Your task to perform on an android device: turn on improve location accuracy Image 0: 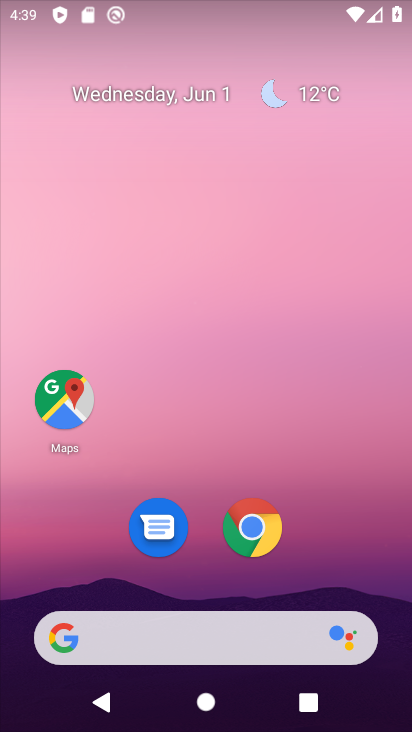
Step 0: drag from (190, 506) to (219, 110)
Your task to perform on an android device: turn on improve location accuracy Image 1: 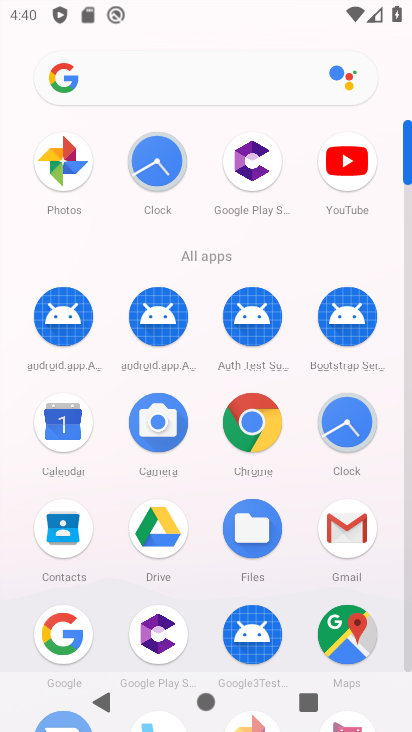
Step 1: drag from (183, 573) to (191, 122)
Your task to perform on an android device: turn on improve location accuracy Image 2: 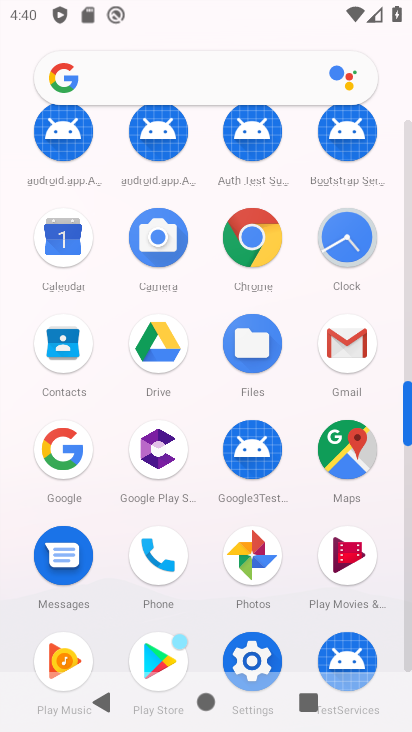
Step 2: click (257, 657)
Your task to perform on an android device: turn on improve location accuracy Image 3: 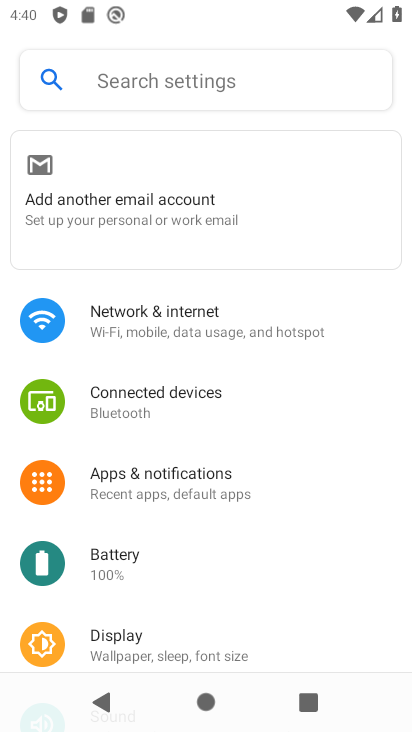
Step 3: drag from (127, 585) to (158, 117)
Your task to perform on an android device: turn on improve location accuracy Image 4: 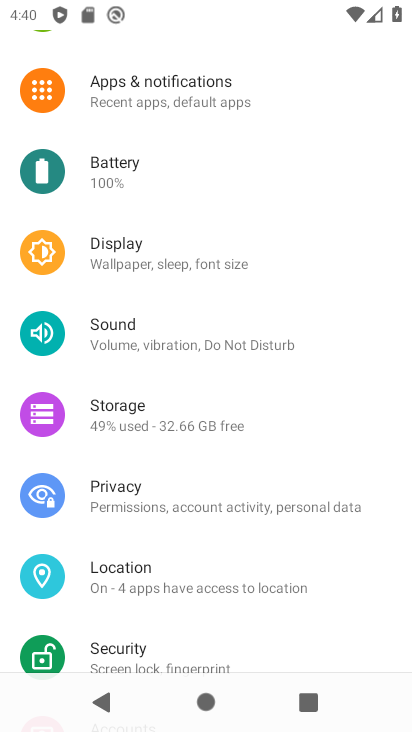
Step 4: click (145, 591)
Your task to perform on an android device: turn on improve location accuracy Image 5: 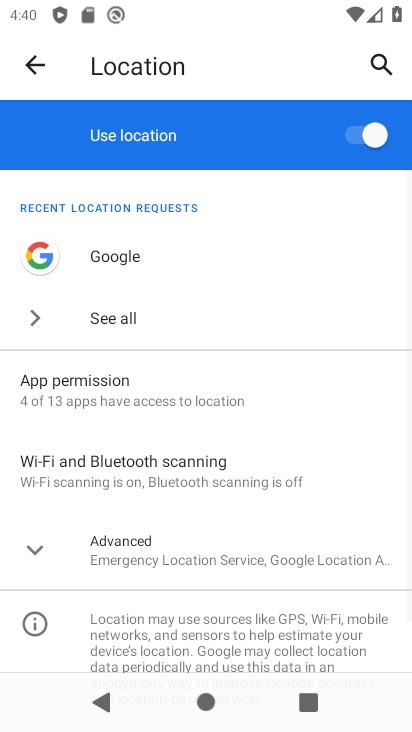
Step 5: click (193, 532)
Your task to perform on an android device: turn on improve location accuracy Image 6: 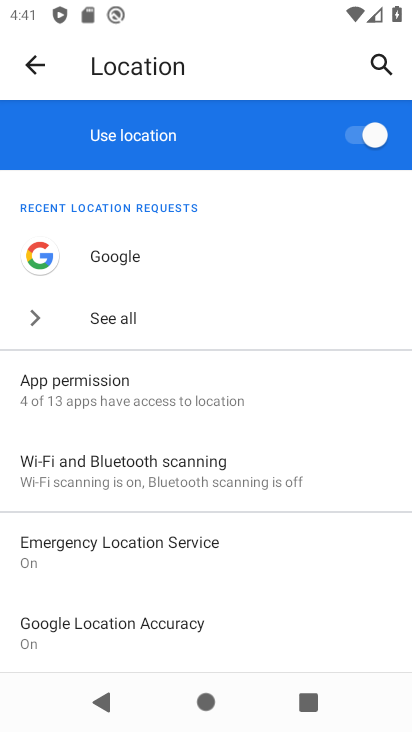
Step 6: click (158, 612)
Your task to perform on an android device: turn on improve location accuracy Image 7: 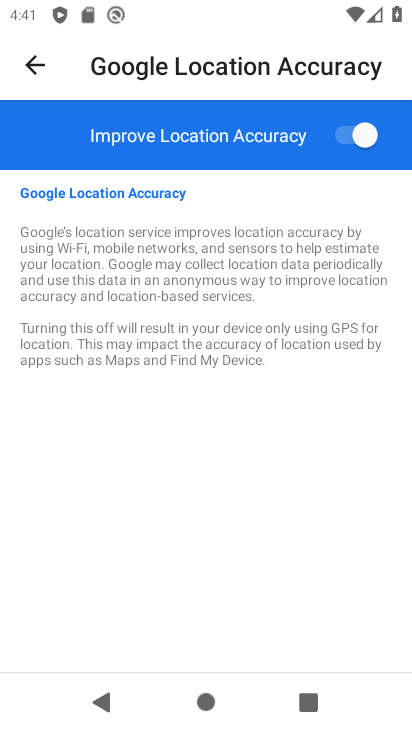
Step 7: task complete